Your task to perform on an android device: show emergency info Image 0: 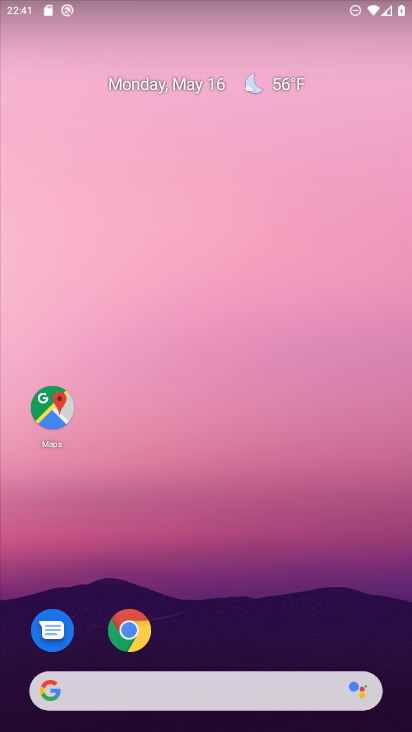
Step 0: drag from (233, 572) to (307, 27)
Your task to perform on an android device: show emergency info Image 1: 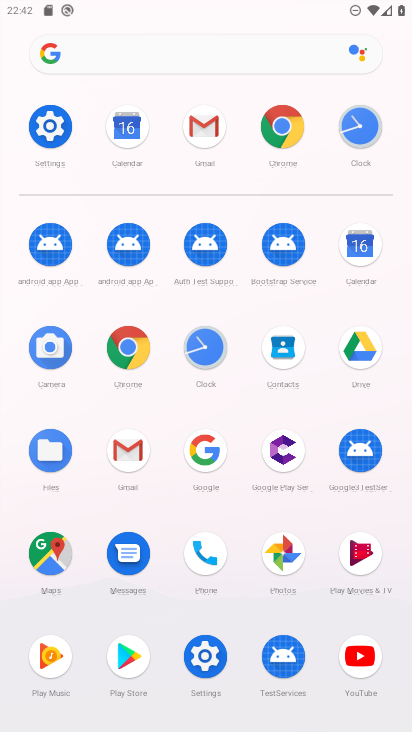
Step 1: click (208, 654)
Your task to perform on an android device: show emergency info Image 2: 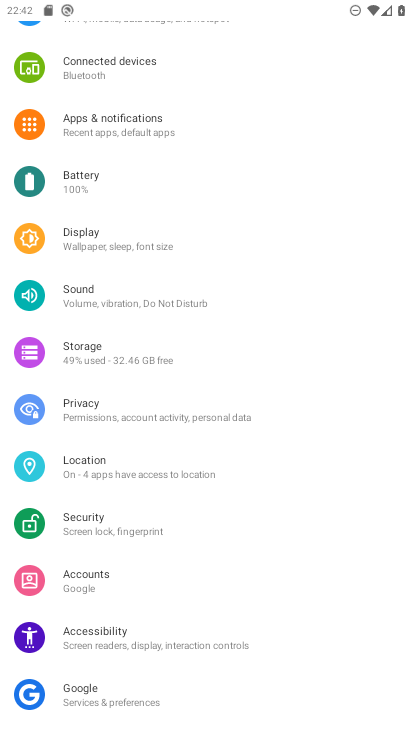
Step 2: drag from (133, 668) to (259, 175)
Your task to perform on an android device: show emergency info Image 3: 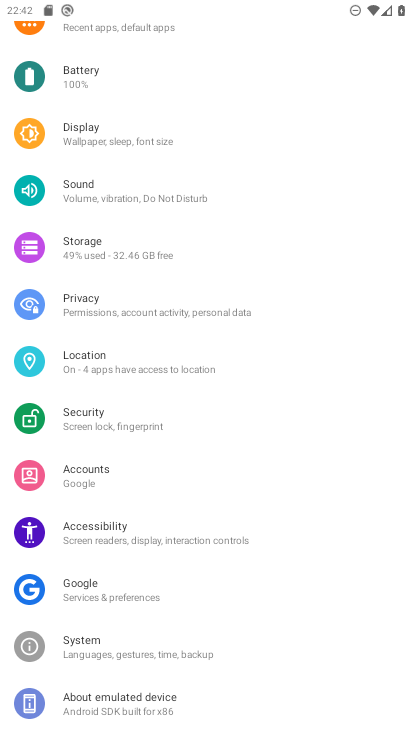
Step 3: click (180, 699)
Your task to perform on an android device: show emergency info Image 4: 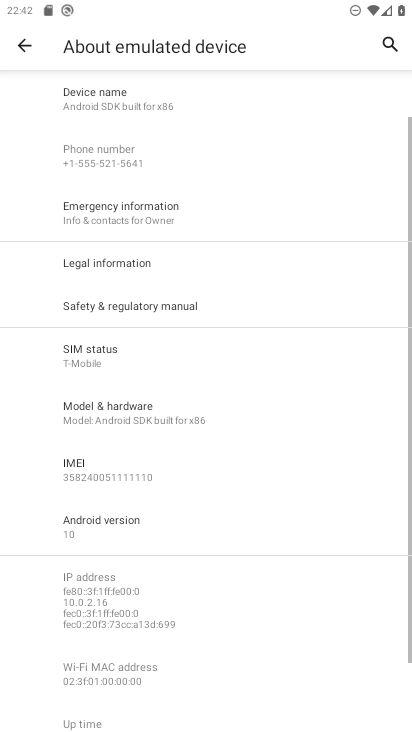
Step 4: click (124, 206)
Your task to perform on an android device: show emergency info Image 5: 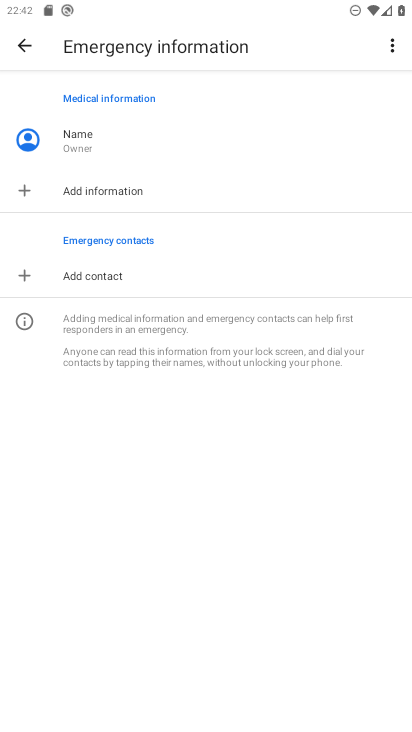
Step 5: task complete